Your task to perform on an android device: allow cookies in the chrome app Image 0: 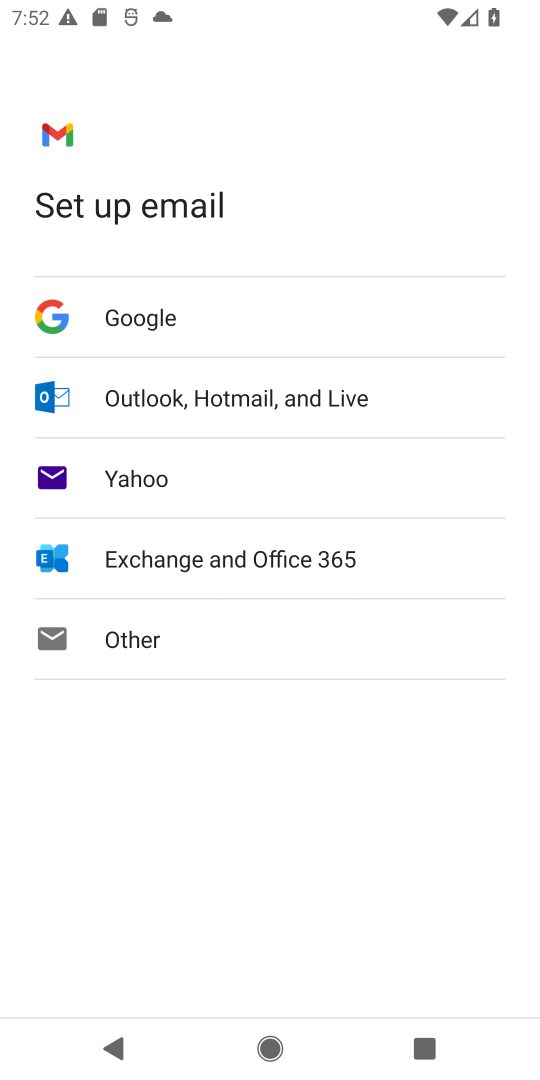
Step 0: press enter
Your task to perform on an android device: allow cookies in the chrome app Image 1: 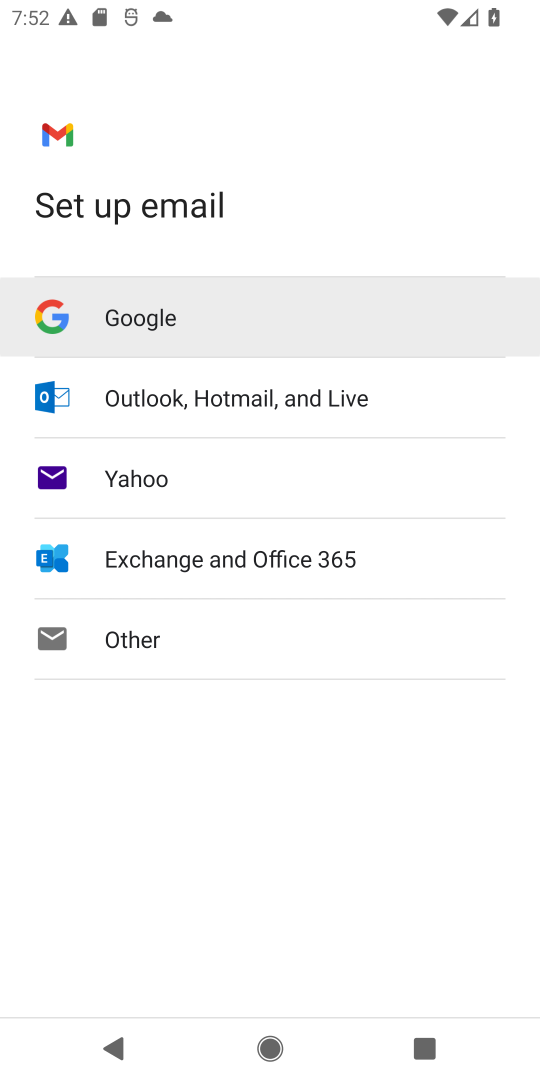
Step 1: press home button
Your task to perform on an android device: allow cookies in the chrome app Image 2: 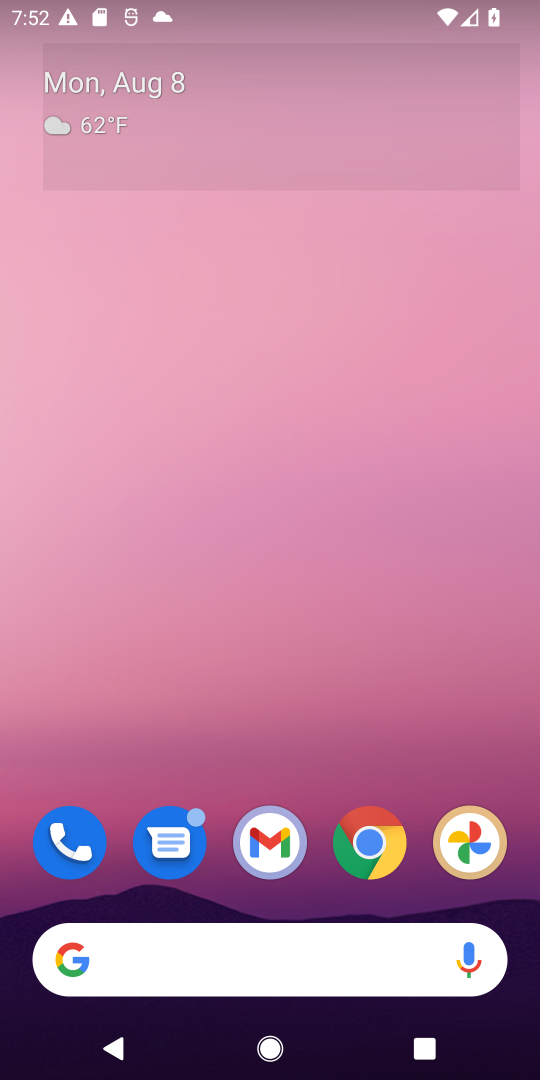
Step 2: click (372, 844)
Your task to perform on an android device: allow cookies in the chrome app Image 3: 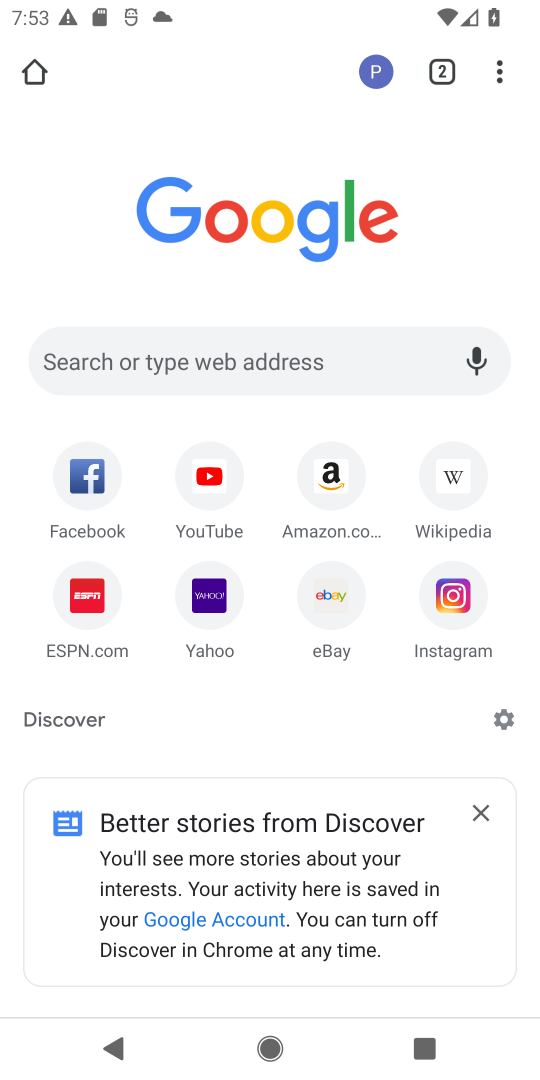
Step 3: click (500, 82)
Your task to perform on an android device: allow cookies in the chrome app Image 4: 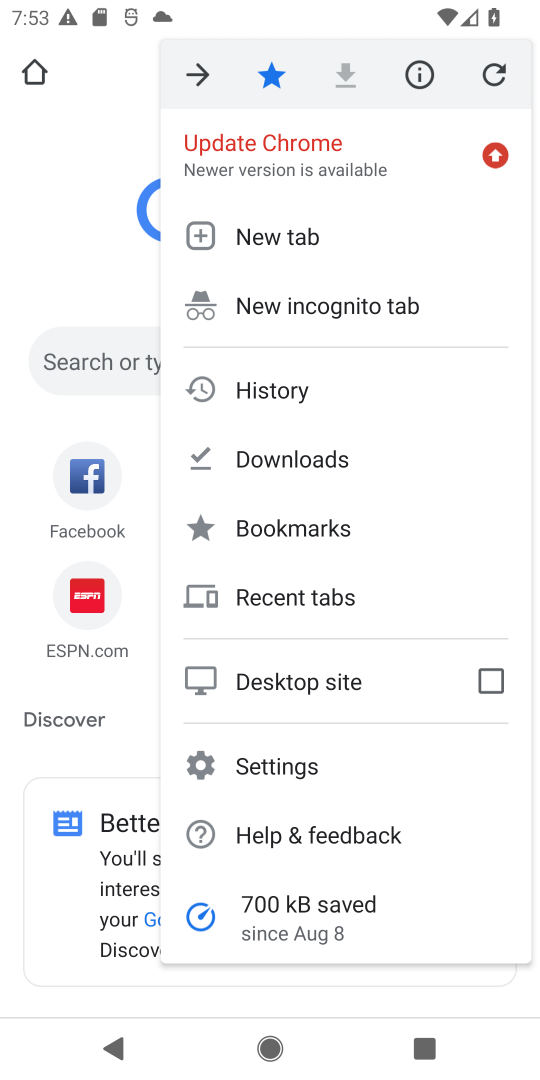
Step 4: click (298, 763)
Your task to perform on an android device: allow cookies in the chrome app Image 5: 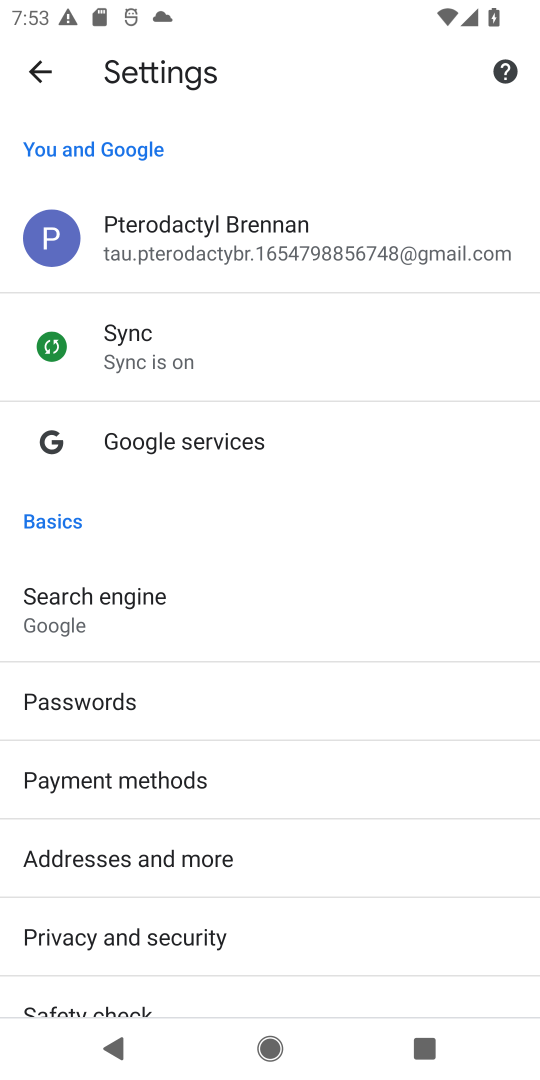
Step 5: drag from (375, 831) to (325, 203)
Your task to perform on an android device: allow cookies in the chrome app Image 6: 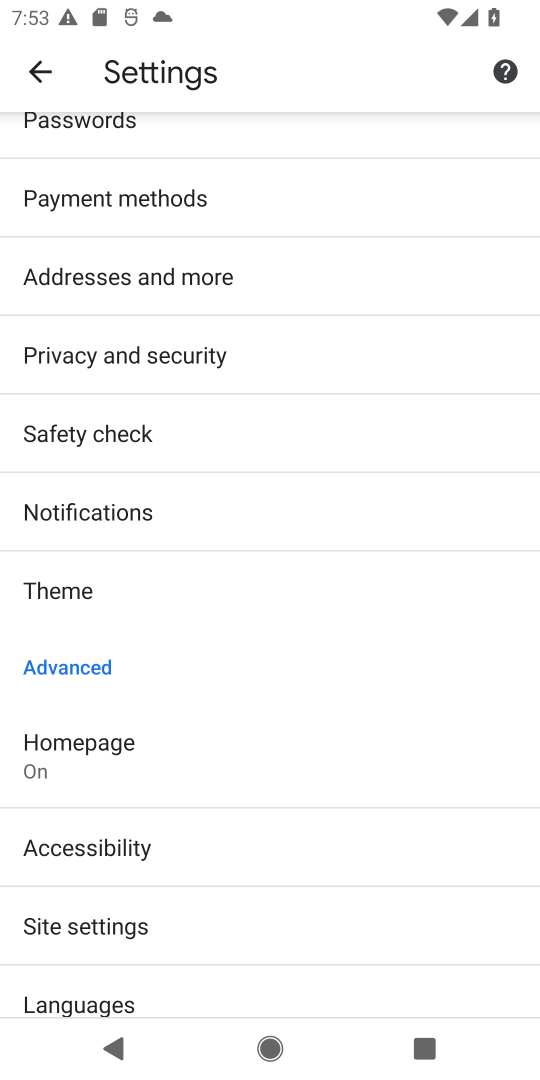
Step 6: click (266, 929)
Your task to perform on an android device: allow cookies in the chrome app Image 7: 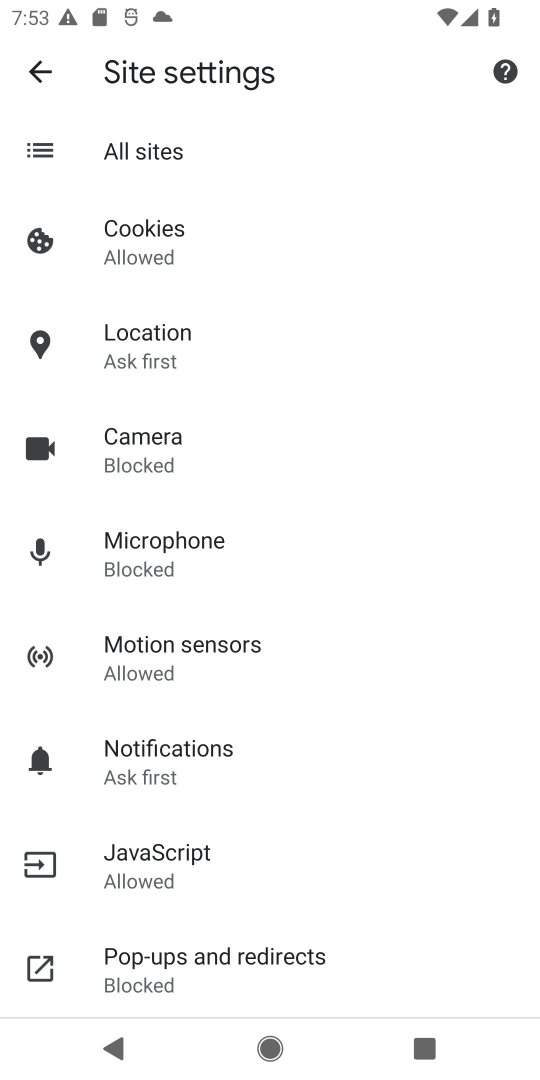
Step 7: click (188, 224)
Your task to perform on an android device: allow cookies in the chrome app Image 8: 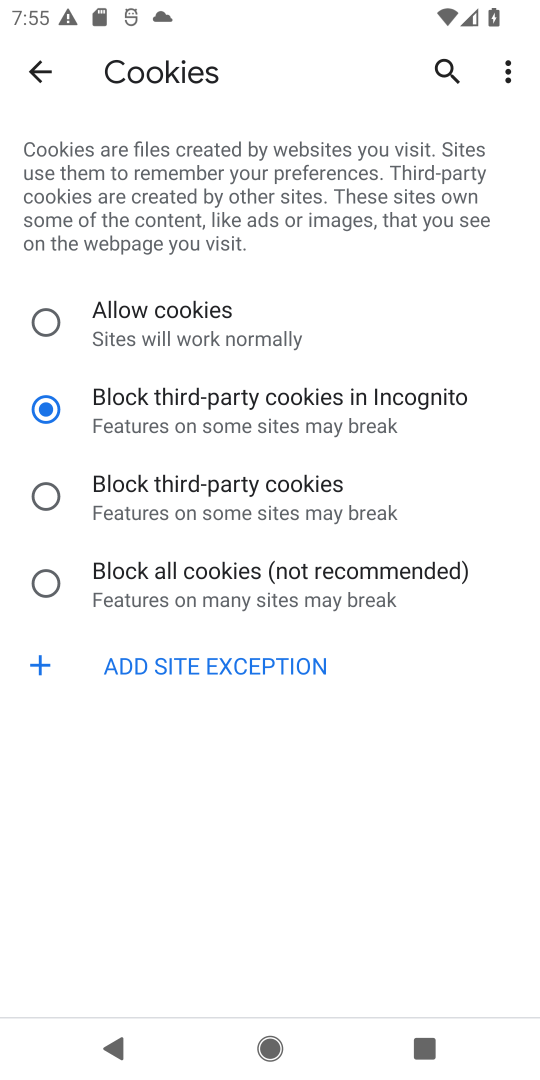
Step 8: task complete